Your task to perform on an android device: stop showing notifications on the lock screen Image 0: 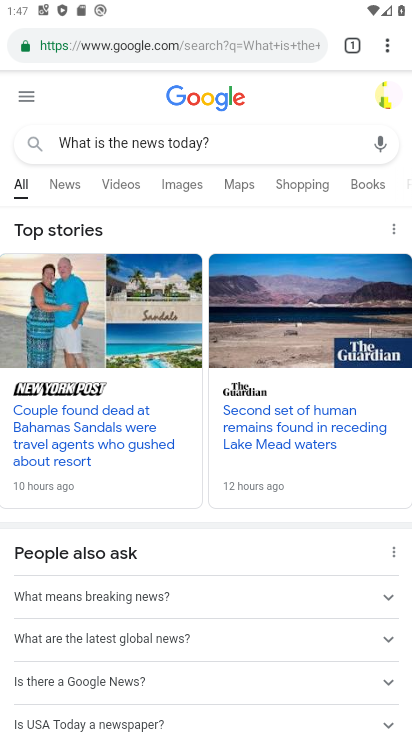
Step 0: press back button
Your task to perform on an android device: stop showing notifications on the lock screen Image 1: 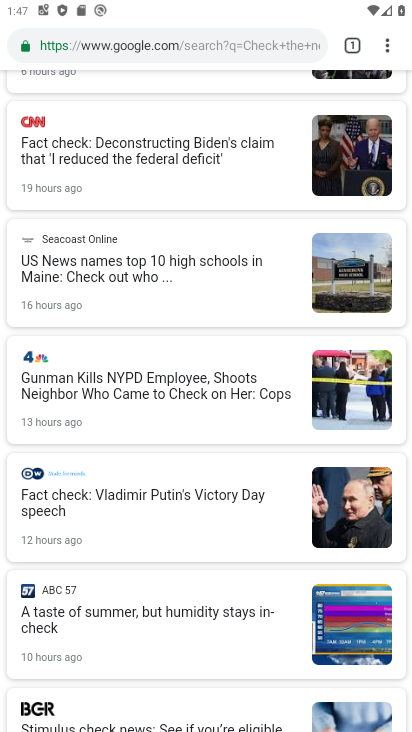
Step 1: press home button
Your task to perform on an android device: stop showing notifications on the lock screen Image 2: 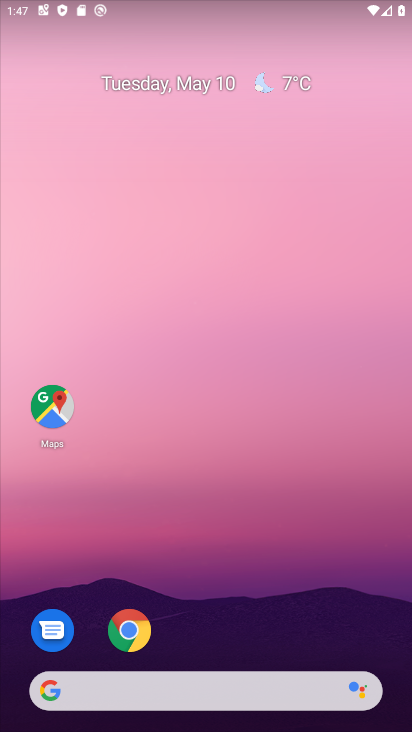
Step 2: drag from (189, 577) to (146, 18)
Your task to perform on an android device: stop showing notifications on the lock screen Image 3: 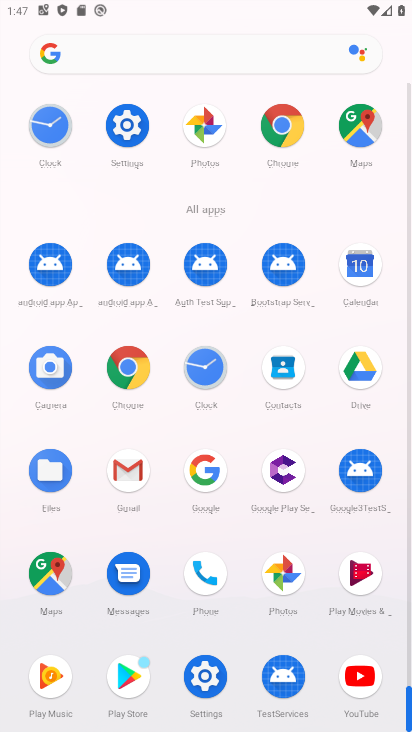
Step 3: drag from (9, 492) to (28, 160)
Your task to perform on an android device: stop showing notifications on the lock screen Image 4: 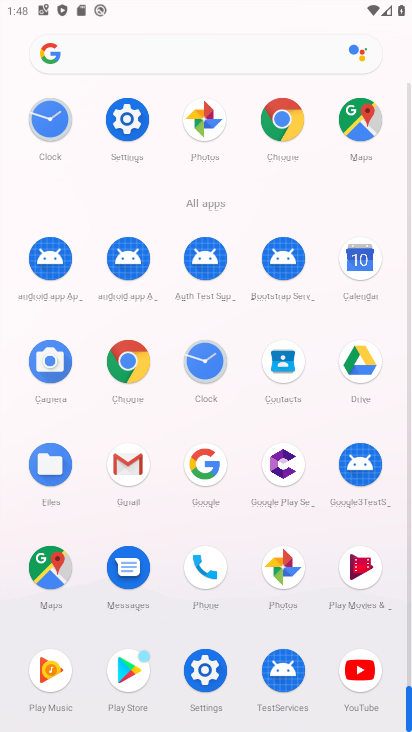
Step 4: drag from (12, 486) to (19, 154)
Your task to perform on an android device: stop showing notifications on the lock screen Image 5: 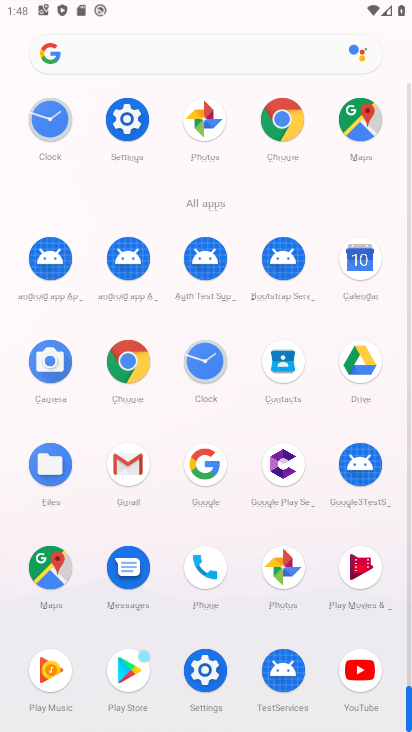
Step 5: drag from (11, 529) to (27, 236)
Your task to perform on an android device: stop showing notifications on the lock screen Image 6: 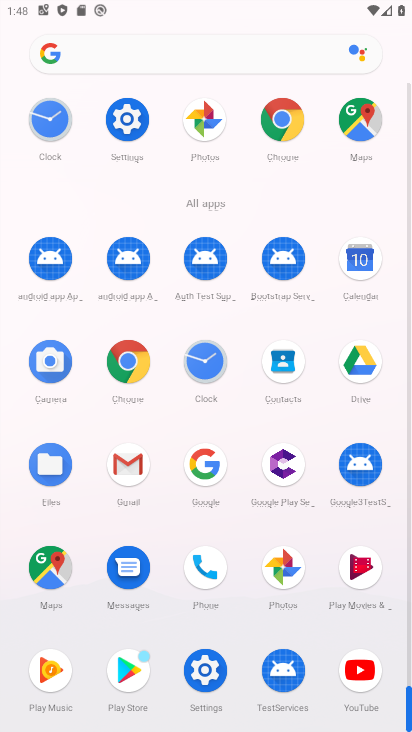
Step 6: click (207, 661)
Your task to perform on an android device: stop showing notifications on the lock screen Image 7: 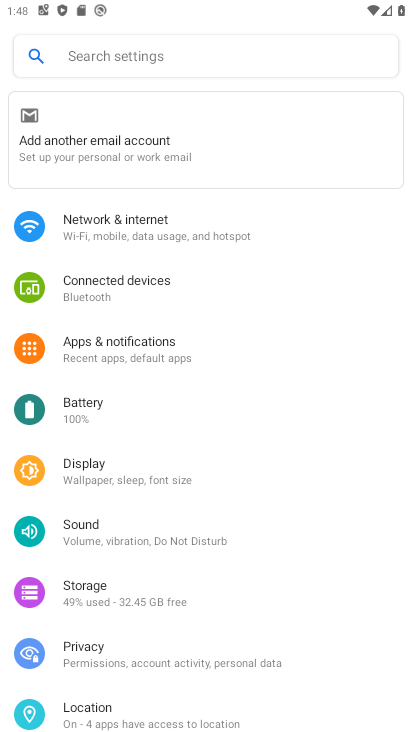
Step 7: drag from (213, 517) to (221, 253)
Your task to perform on an android device: stop showing notifications on the lock screen Image 8: 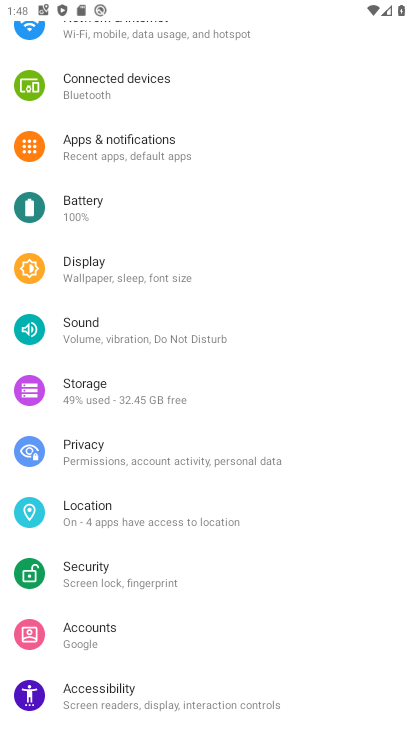
Step 8: click (161, 151)
Your task to perform on an android device: stop showing notifications on the lock screen Image 9: 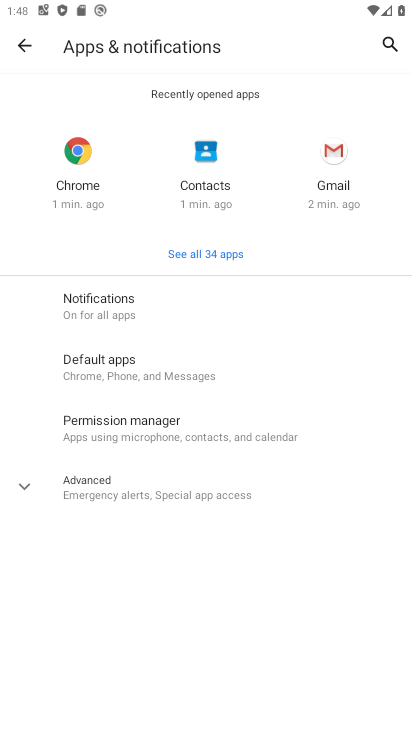
Step 9: click (111, 308)
Your task to perform on an android device: stop showing notifications on the lock screen Image 10: 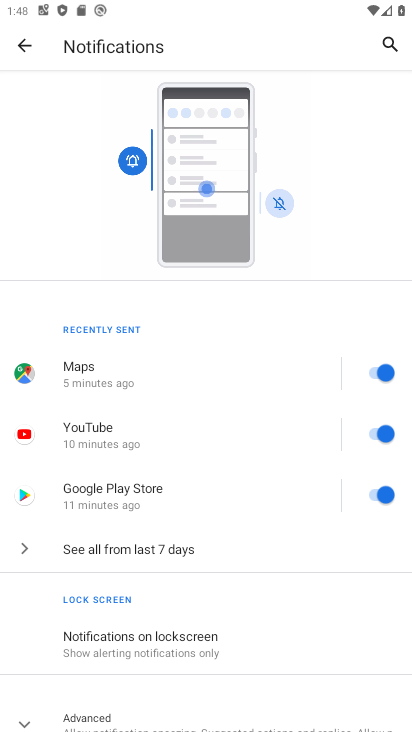
Step 10: drag from (191, 554) to (280, 113)
Your task to perform on an android device: stop showing notifications on the lock screen Image 11: 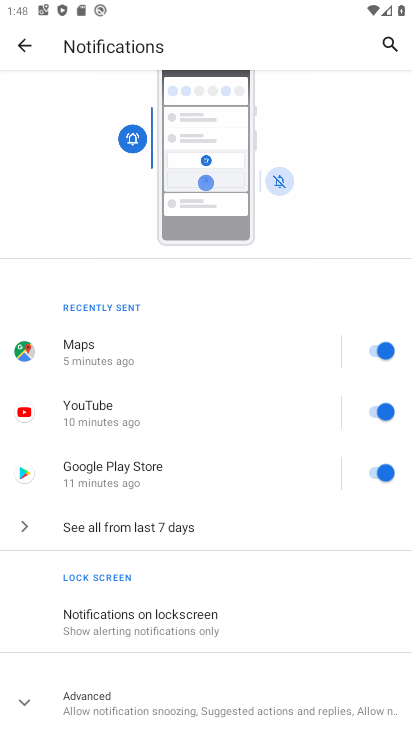
Step 11: click (31, 695)
Your task to perform on an android device: stop showing notifications on the lock screen Image 12: 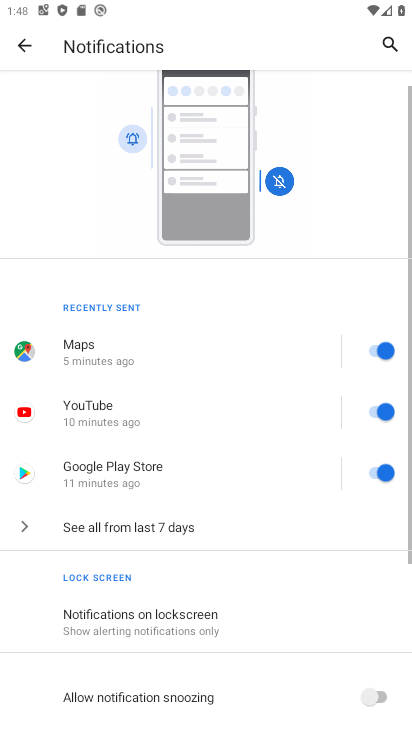
Step 12: drag from (194, 652) to (260, 187)
Your task to perform on an android device: stop showing notifications on the lock screen Image 13: 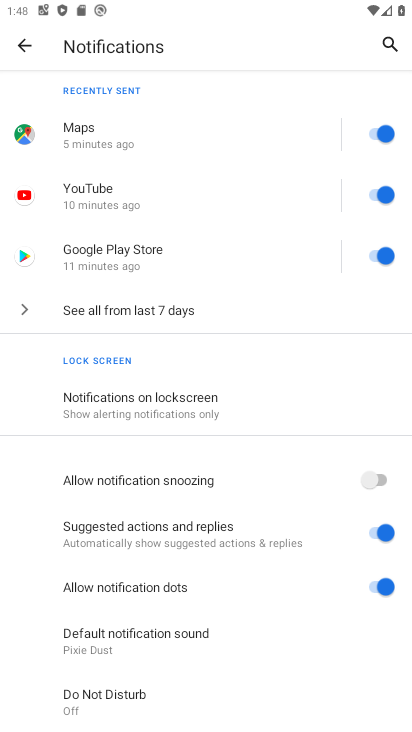
Step 13: drag from (238, 549) to (244, 166)
Your task to perform on an android device: stop showing notifications on the lock screen Image 14: 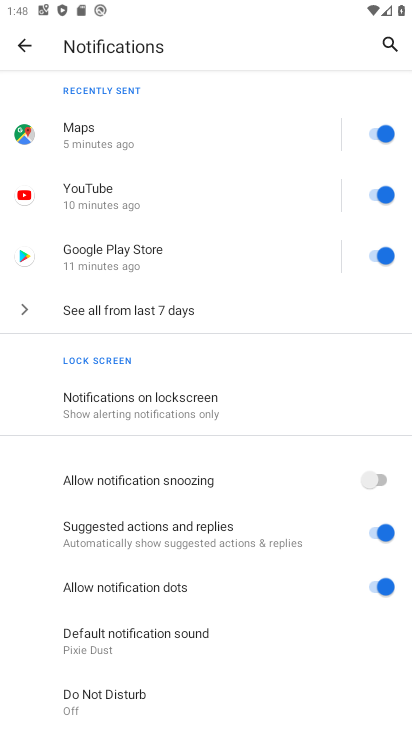
Step 14: click (200, 393)
Your task to perform on an android device: stop showing notifications on the lock screen Image 15: 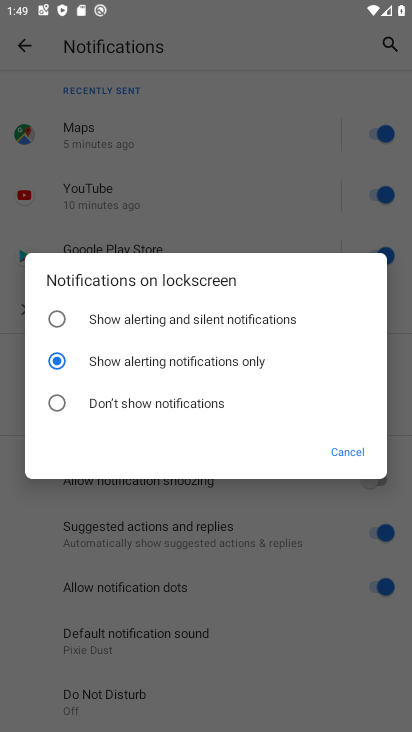
Step 15: click (128, 411)
Your task to perform on an android device: stop showing notifications on the lock screen Image 16: 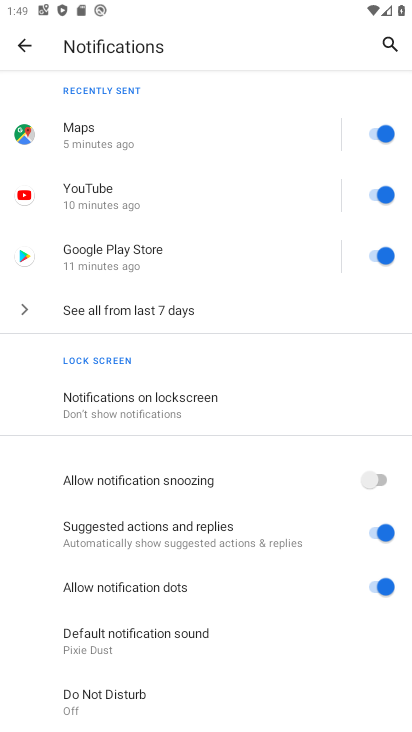
Step 16: task complete